Your task to perform on an android device: change timer sound Image 0: 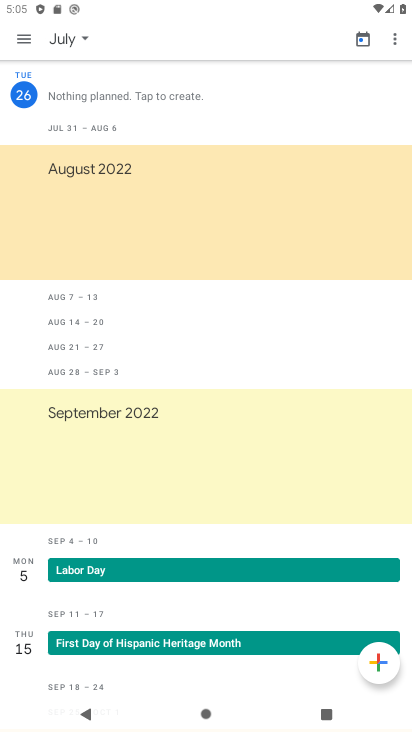
Step 0: press home button
Your task to perform on an android device: change timer sound Image 1: 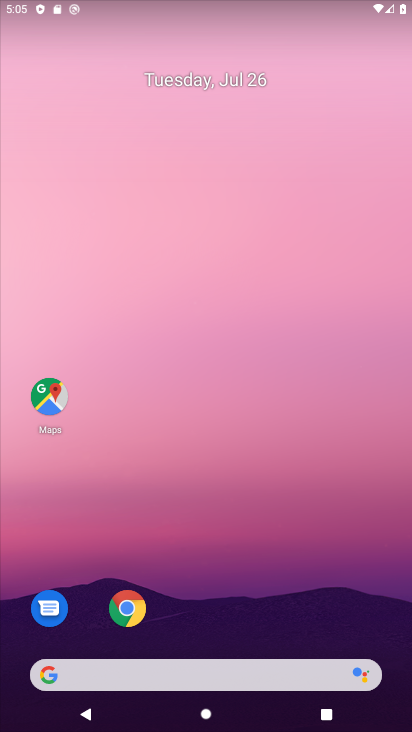
Step 1: drag from (240, 634) to (305, 128)
Your task to perform on an android device: change timer sound Image 2: 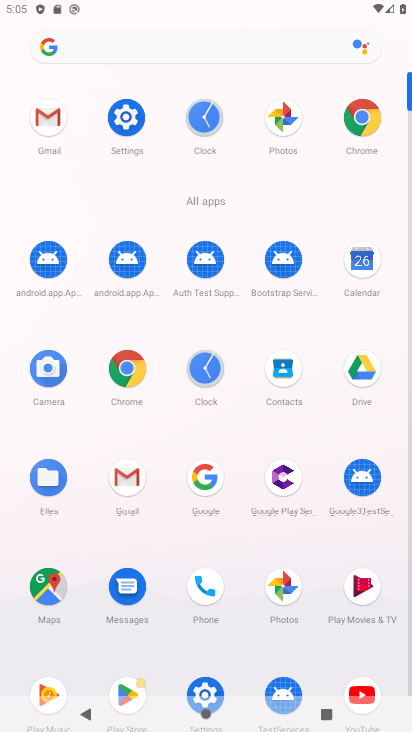
Step 2: click (200, 129)
Your task to perform on an android device: change timer sound Image 3: 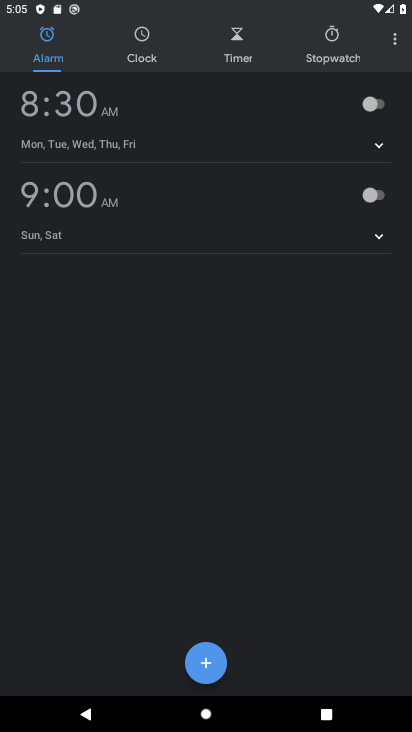
Step 3: click (397, 42)
Your task to perform on an android device: change timer sound Image 4: 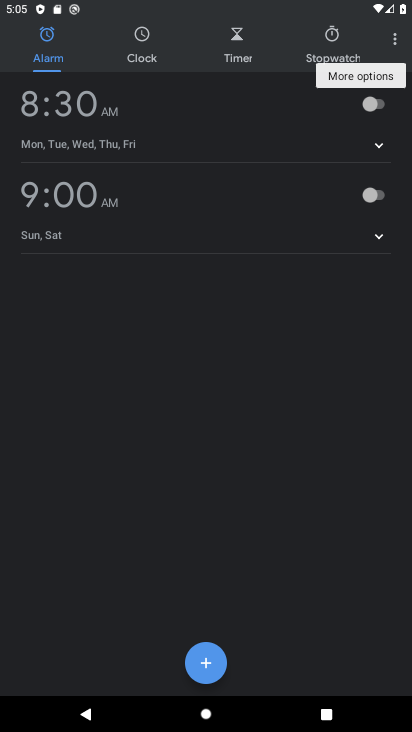
Step 4: click (393, 42)
Your task to perform on an android device: change timer sound Image 5: 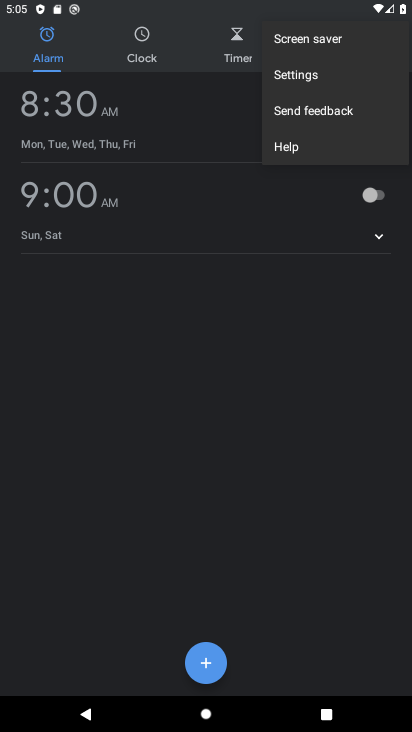
Step 5: click (302, 77)
Your task to perform on an android device: change timer sound Image 6: 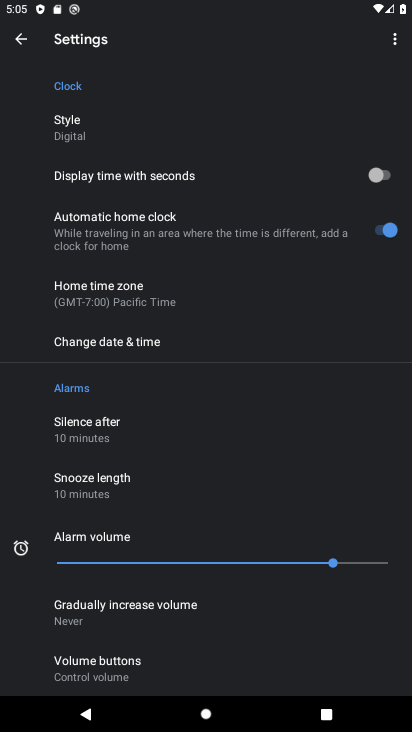
Step 6: drag from (265, 520) to (281, 179)
Your task to perform on an android device: change timer sound Image 7: 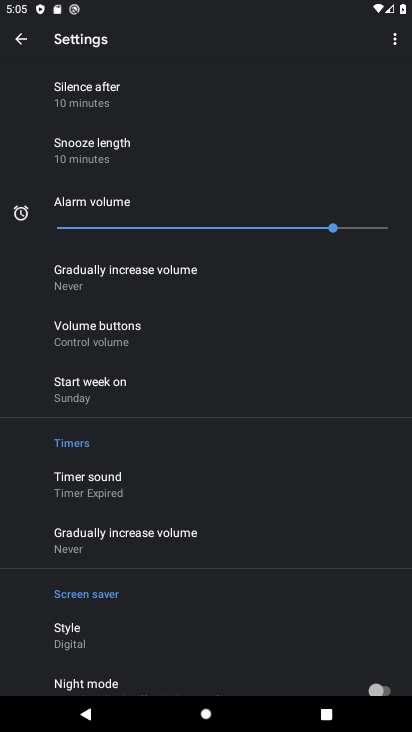
Step 7: click (92, 494)
Your task to perform on an android device: change timer sound Image 8: 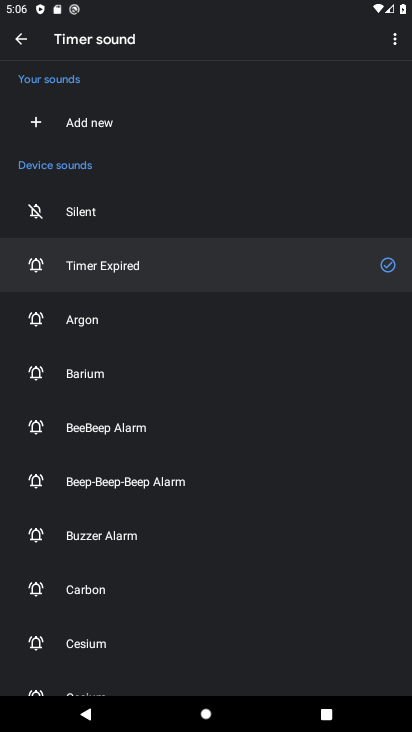
Step 8: click (86, 322)
Your task to perform on an android device: change timer sound Image 9: 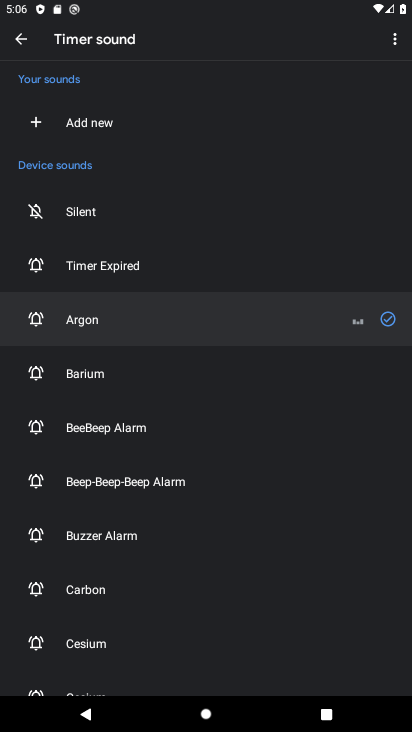
Step 9: task complete